Your task to perform on an android device: add a label to a message in the gmail app Image 0: 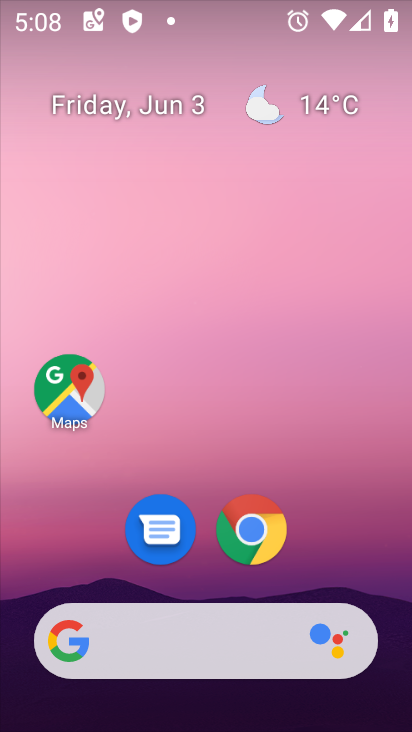
Step 0: press home button
Your task to perform on an android device: add a label to a message in the gmail app Image 1: 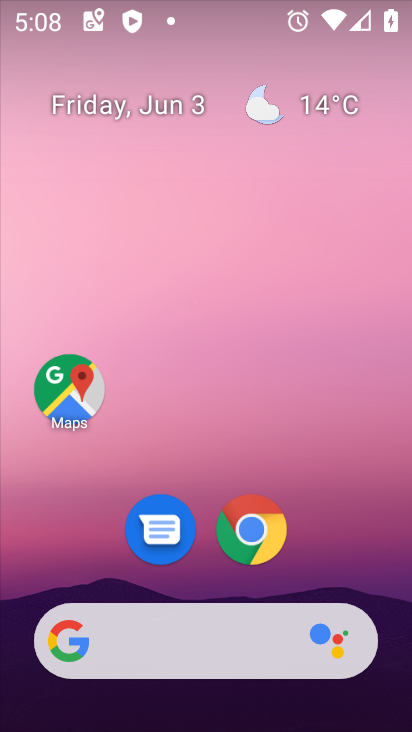
Step 1: drag from (197, 570) to (211, 96)
Your task to perform on an android device: add a label to a message in the gmail app Image 2: 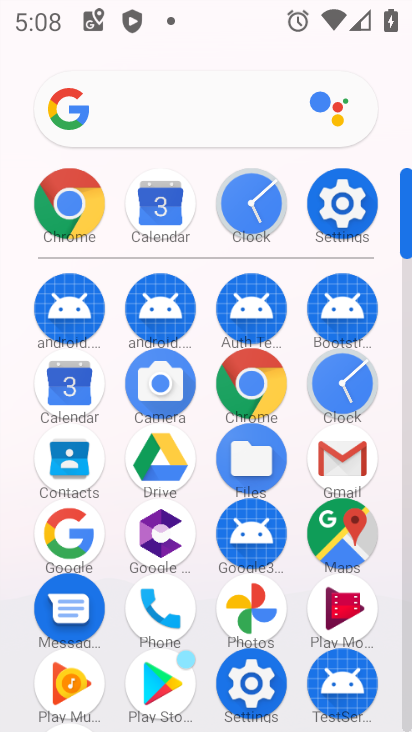
Step 2: click (344, 450)
Your task to perform on an android device: add a label to a message in the gmail app Image 3: 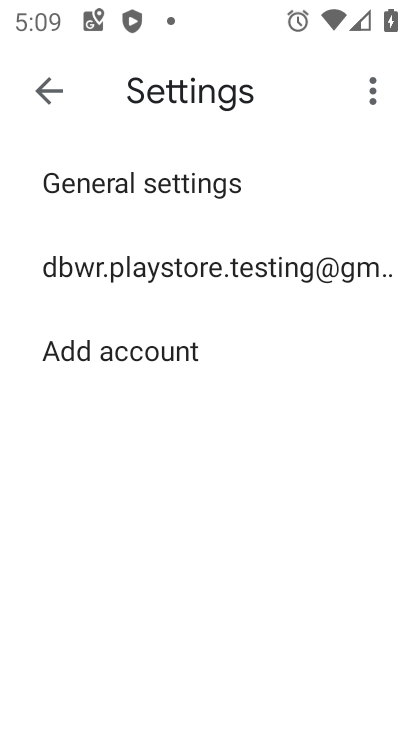
Step 3: press home button
Your task to perform on an android device: add a label to a message in the gmail app Image 4: 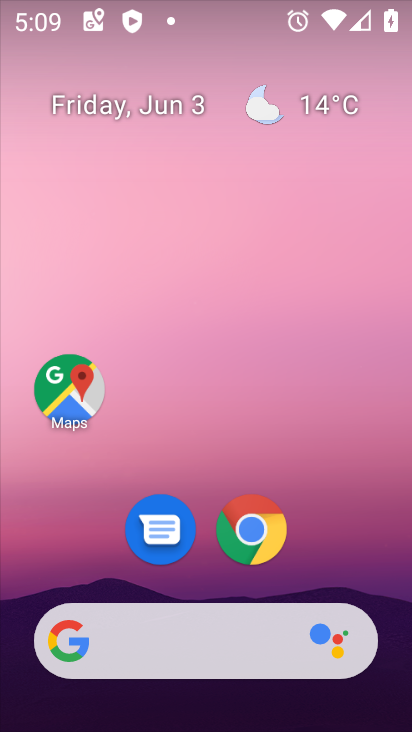
Step 4: drag from (206, 568) to (219, 21)
Your task to perform on an android device: add a label to a message in the gmail app Image 5: 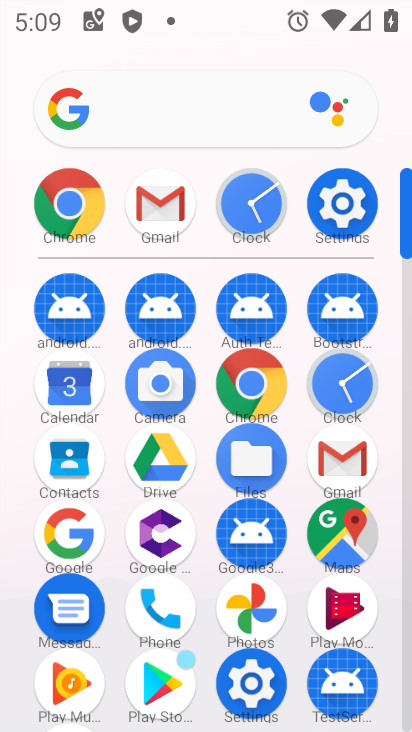
Step 5: click (345, 446)
Your task to perform on an android device: add a label to a message in the gmail app Image 6: 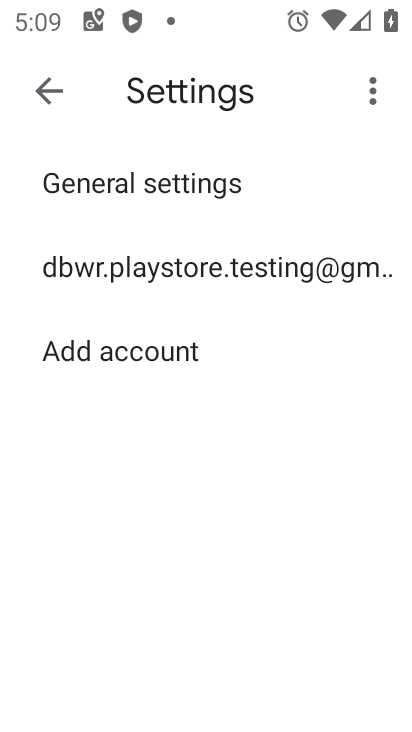
Step 6: click (52, 88)
Your task to perform on an android device: add a label to a message in the gmail app Image 7: 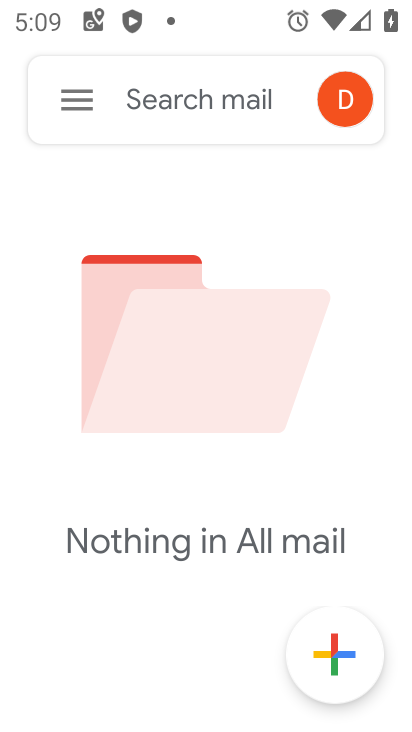
Step 7: task complete